Your task to perform on an android device: Search for Italian restaurants on Maps Image 0: 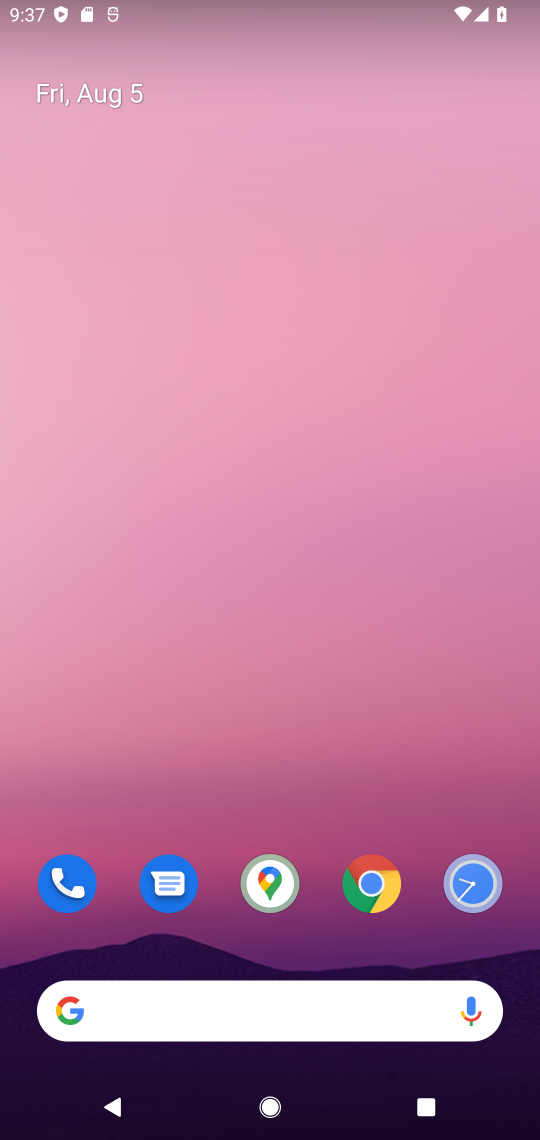
Step 0: click (290, 895)
Your task to perform on an android device: Search for Italian restaurants on Maps Image 1: 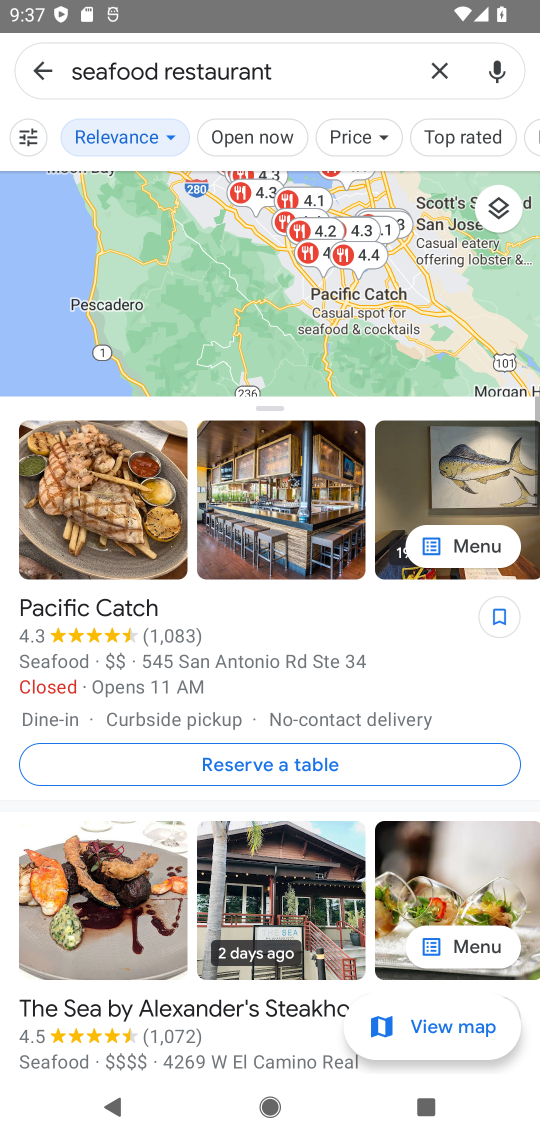
Step 1: click (419, 61)
Your task to perform on an android device: Search for Italian restaurants on Maps Image 2: 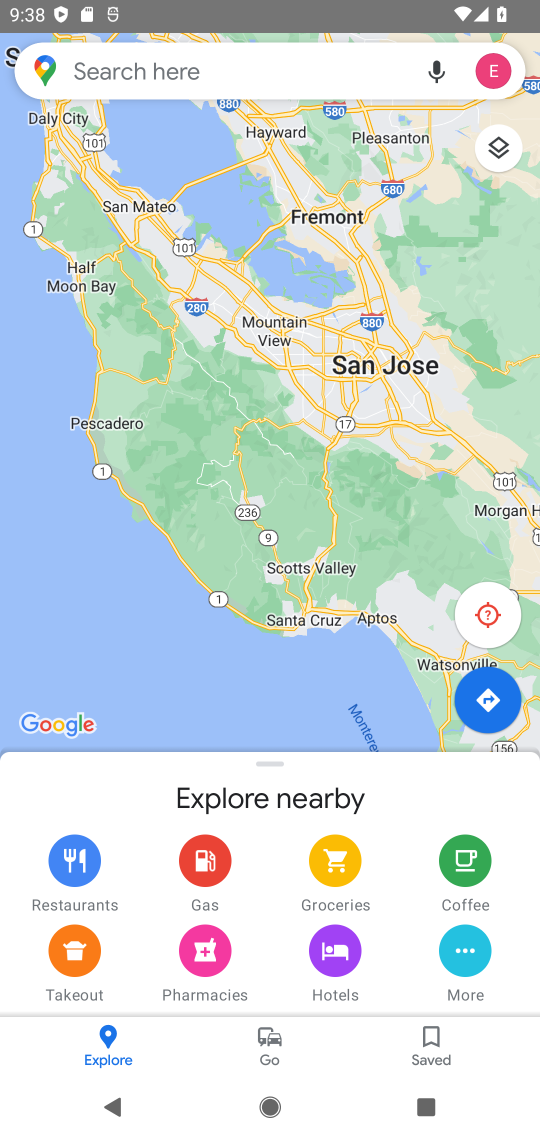
Step 2: click (161, 59)
Your task to perform on an android device: Search for Italian restaurants on Maps Image 3: 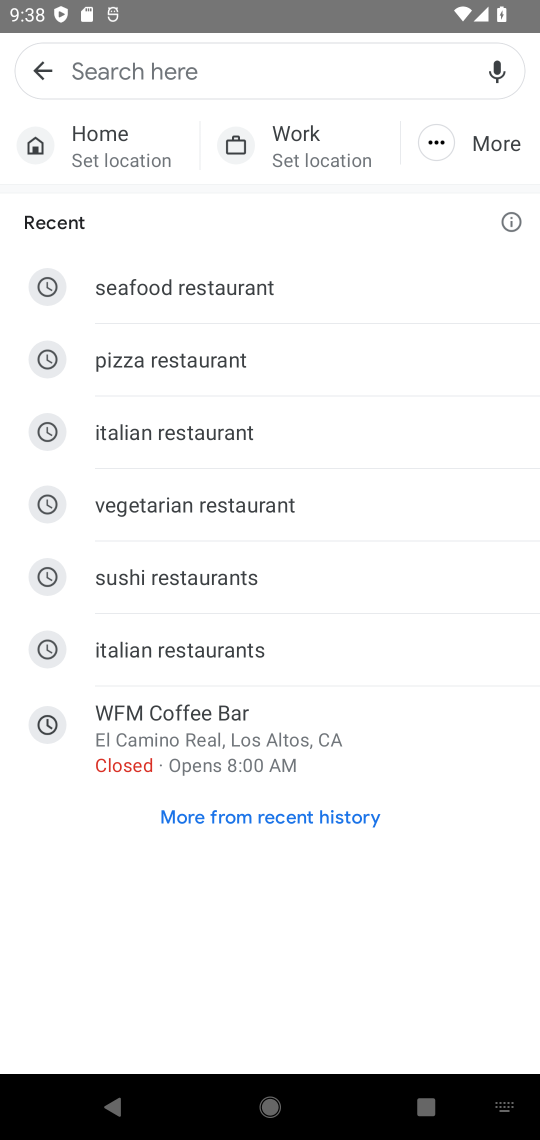
Step 3: type "italian "
Your task to perform on an android device: Search for Italian restaurants on Maps Image 4: 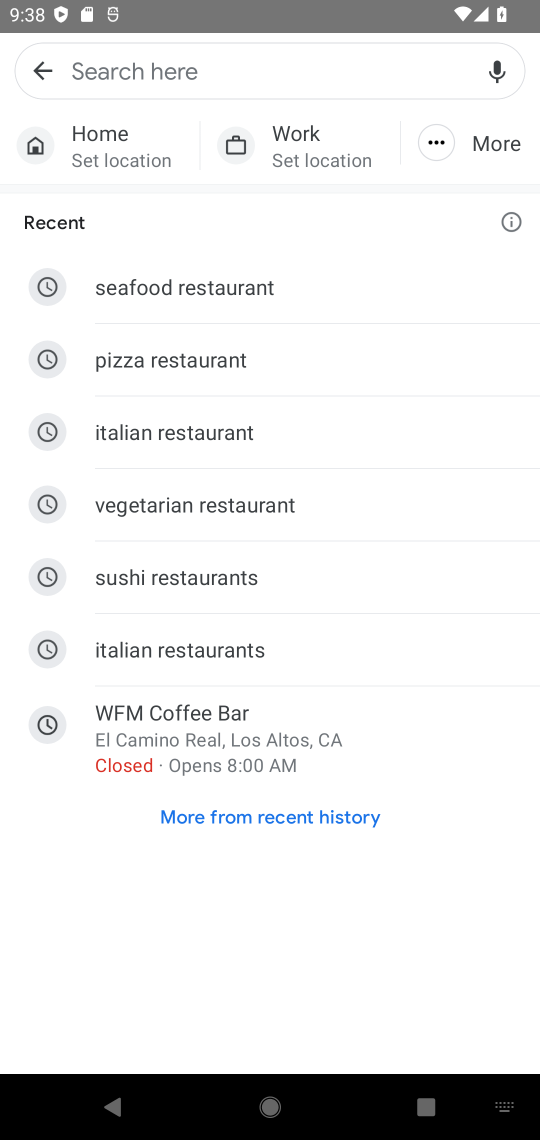
Step 4: click (166, 431)
Your task to perform on an android device: Search for Italian restaurants on Maps Image 5: 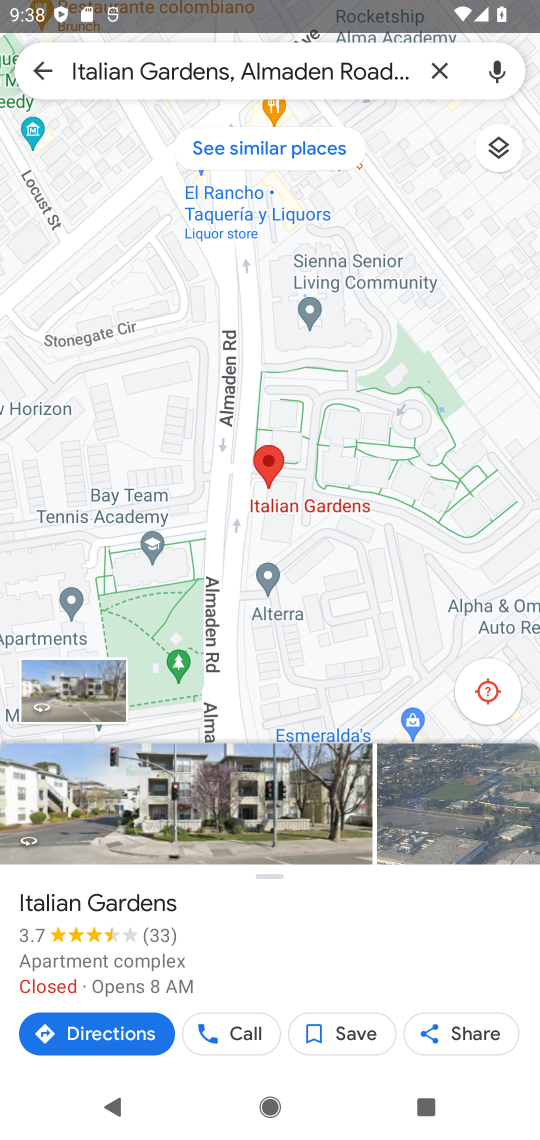
Step 5: click (438, 62)
Your task to perform on an android device: Search for Italian restaurants on Maps Image 6: 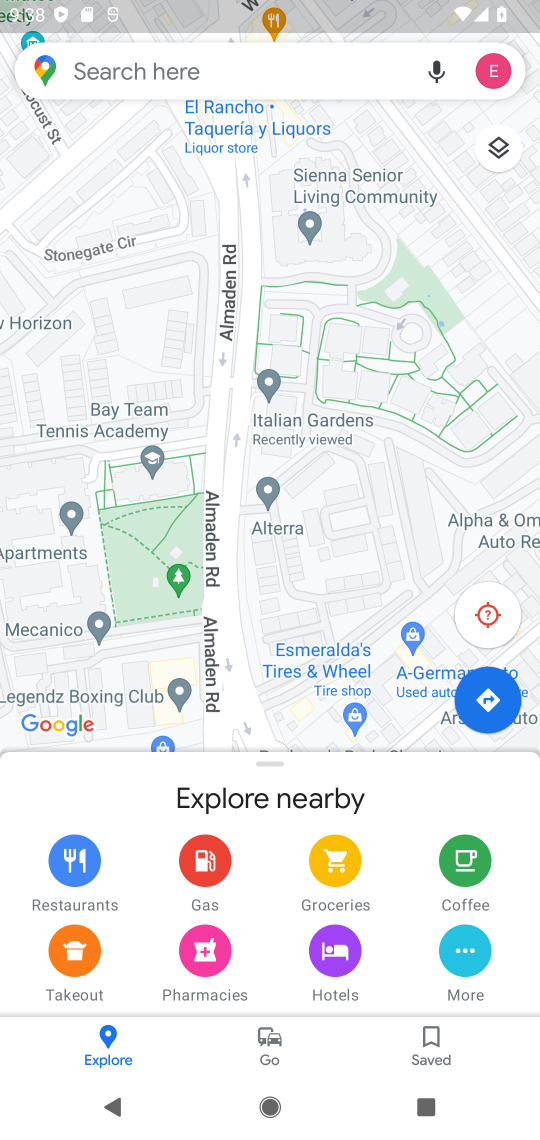
Step 6: click (243, 70)
Your task to perform on an android device: Search for Italian restaurants on Maps Image 7: 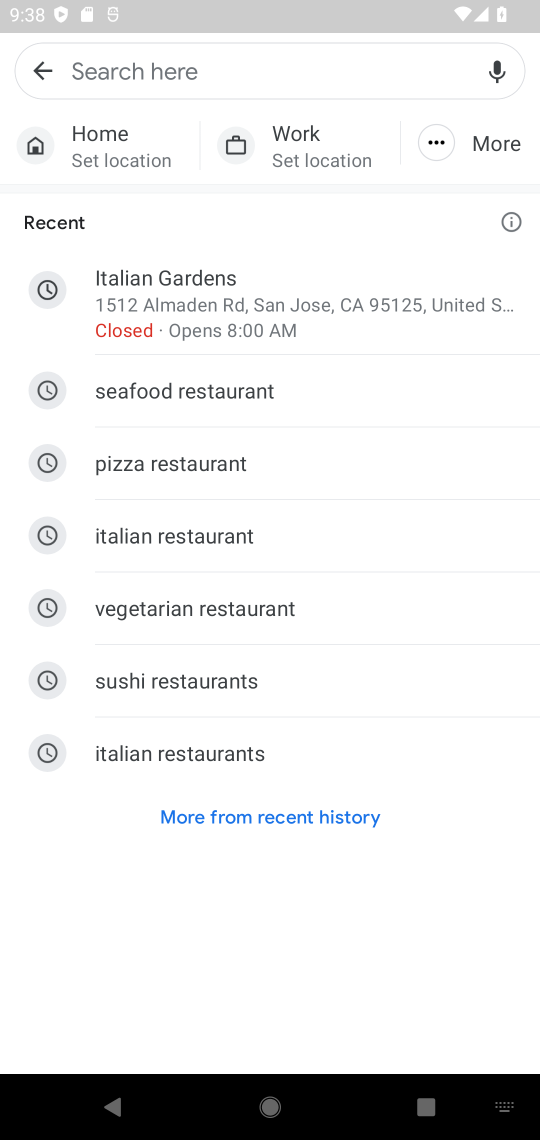
Step 7: click (145, 545)
Your task to perform on an android device: Search for Italian restaurants on Maps Image 8: 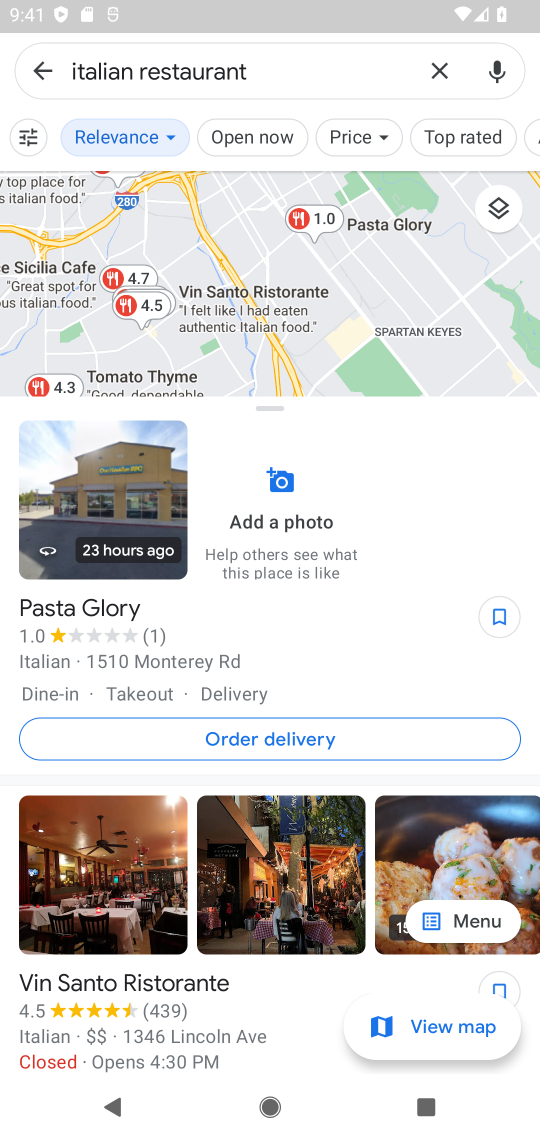
Step 8: task complete